Your task to perform on an android device: Open Wikipedia Image 0: 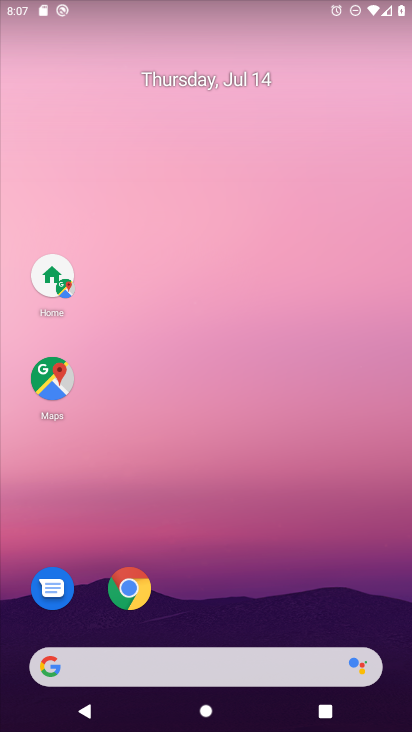
Step 0: click (74, 657)
Your task to perform on an android device: Open Wikipedia Image 1: 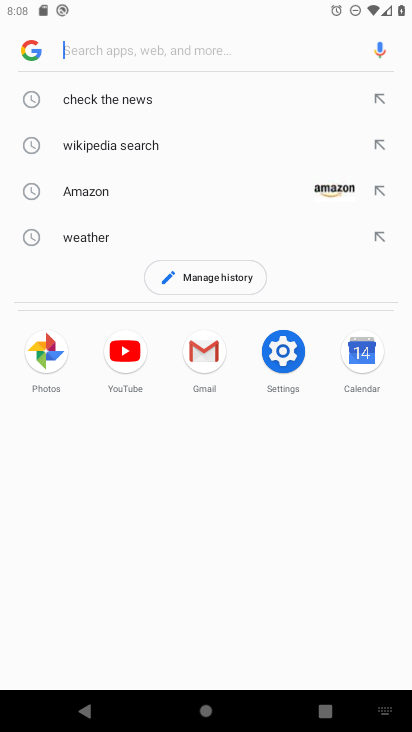
Step 1: type "Wikipedia"
Your task to perform on an android device: Open Wikipedia Image 2: 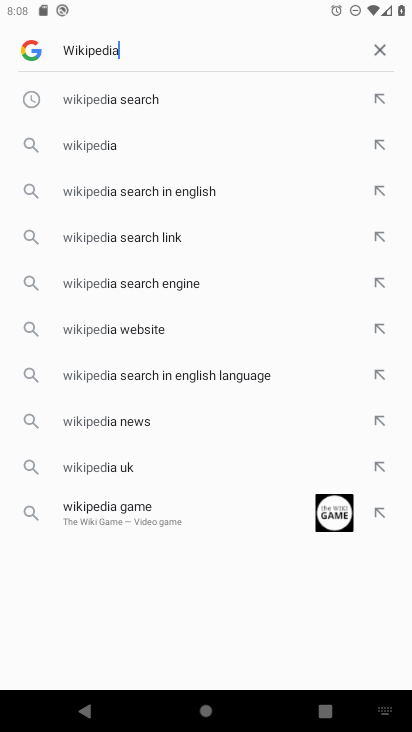
Step 2: type ""
Your task to perform on an android device: Open Wikipedia Image 3: 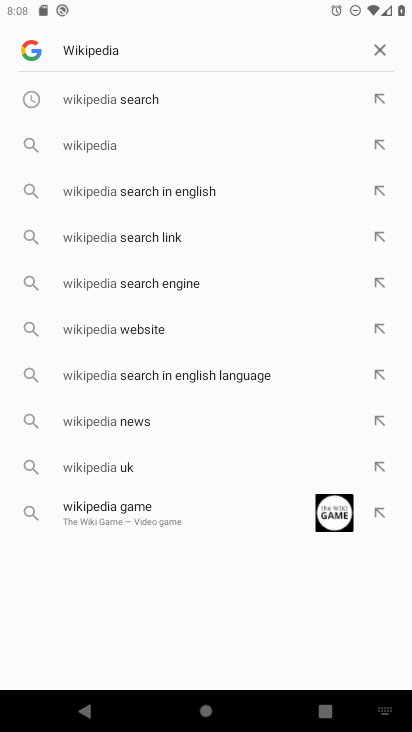
Step 3: click (87, 147)
Your task to perform on an android device: Open Wikipedia Image 4: 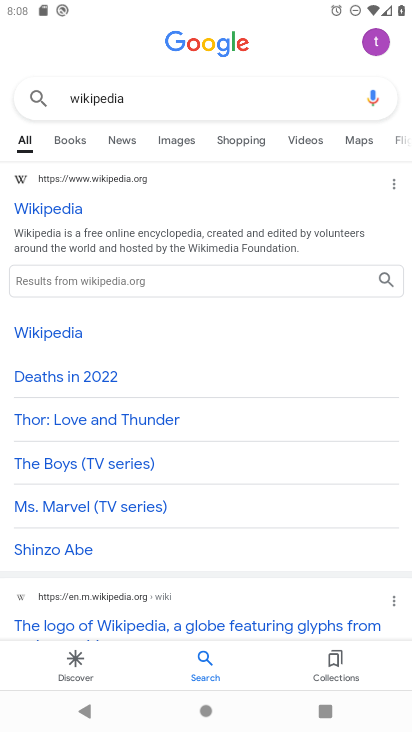
Step 4: task complete